Your task to perform on an android device: delete a single message in the gmail app Image 0: 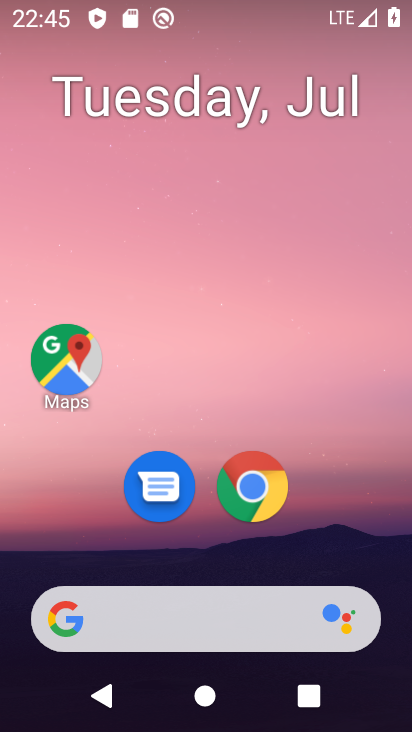
Step 0: press home button
Your task to perform on an android device: delete a single message in the gmail app Image 1: 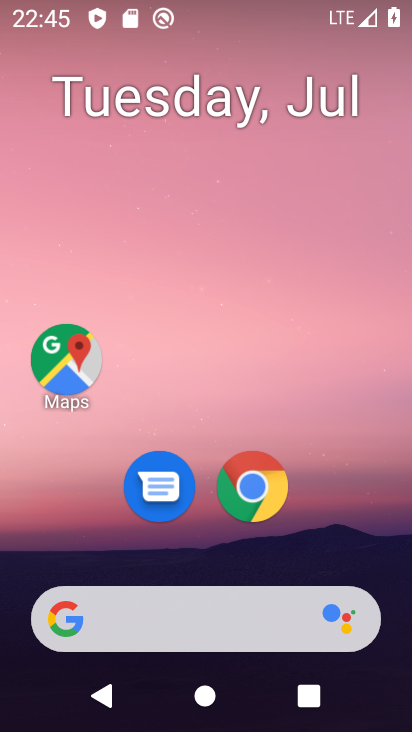
Step 1: drag from (351, 550) to (338, 156)
Your task to perform on an android device: delete a single message in the gmail app Image 2: 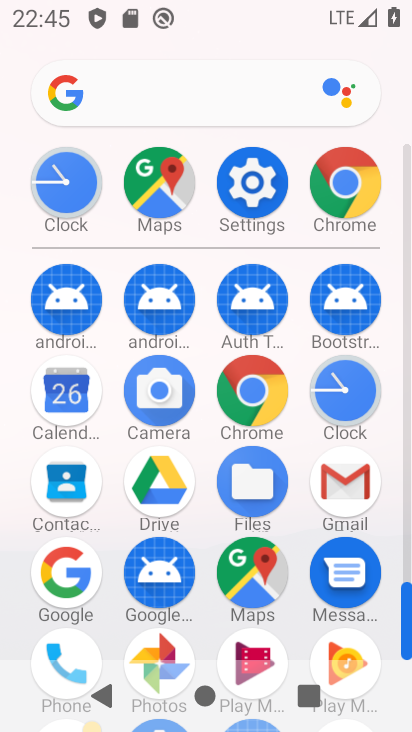
Step 2: click (334, 484)
Your task to perform on an android device: delete a single message in the gmail app Image 3: 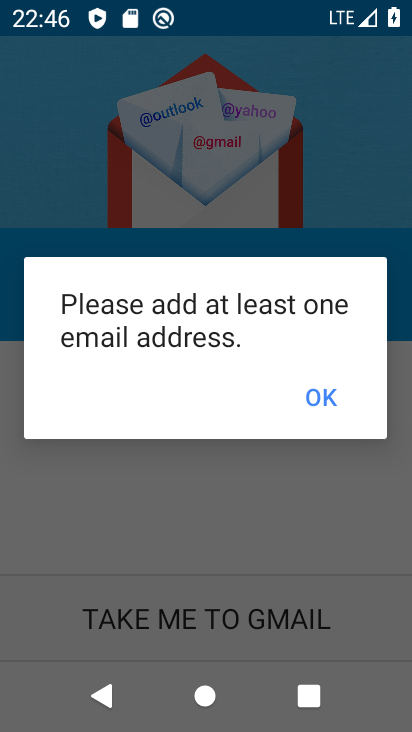
Step 3: task complete